Your task to perform on an android device: show emergency info Image 0: 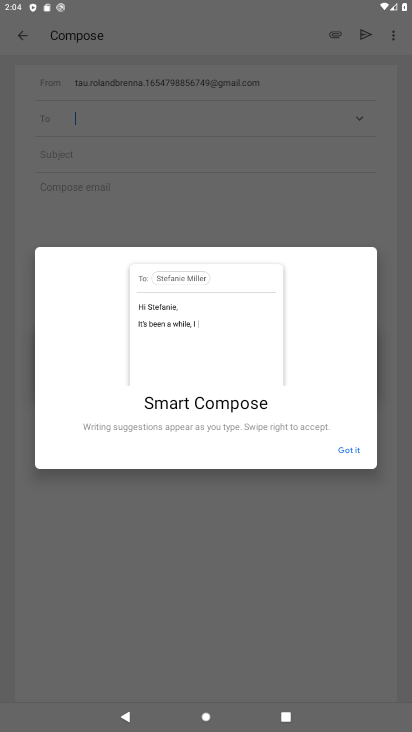
Step 0: press home button
Your task to perform on an android device: show emergency info Image 1: 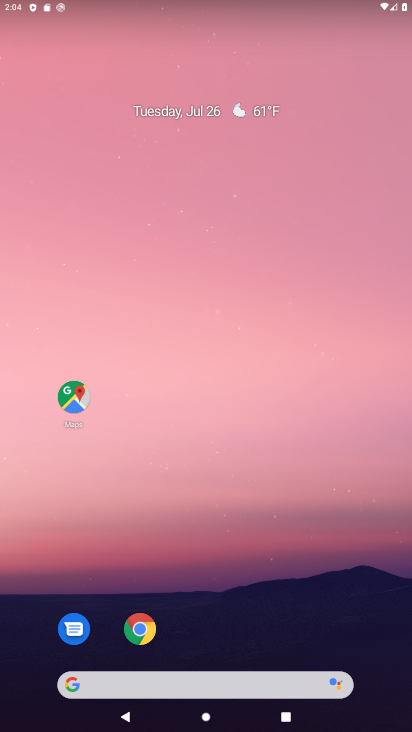
Step 1: drag from (223, 596) to (227, 49)
Your task to perform on an android device: show emergency info Image 2: 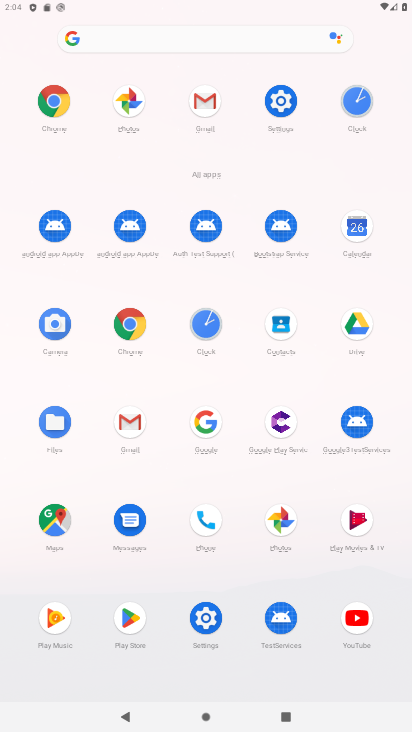
Step 2: click (202, 617)
Your task to perform on an android device: show emergency info Image 3: 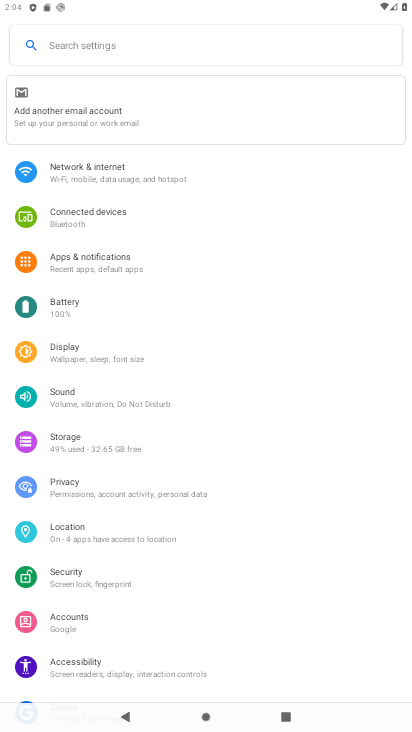
Step 3: drag from (228, 619) to (234, 72)
Your task to perform on an android device: show emergency info Image 4: 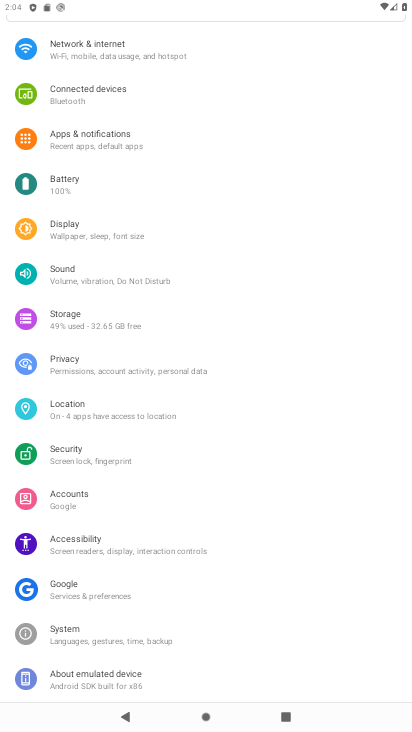
Step 4: click (84, 671)
Your task to perform on an android device: show emergency info Image 5: 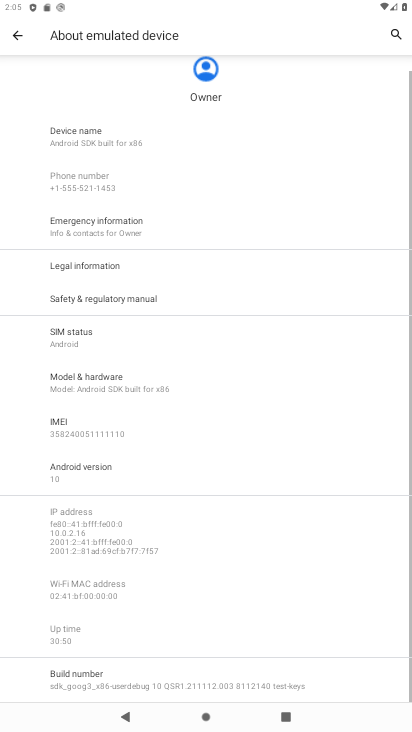
Step 5: task complete